Your task to perform on an android device: Open location settings Image 0: 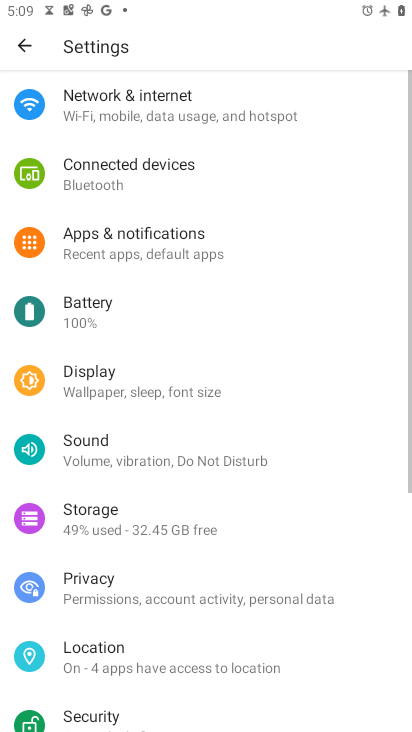
Step 0: press home button
Your task to perform on an android device: Open location settings Image 1: 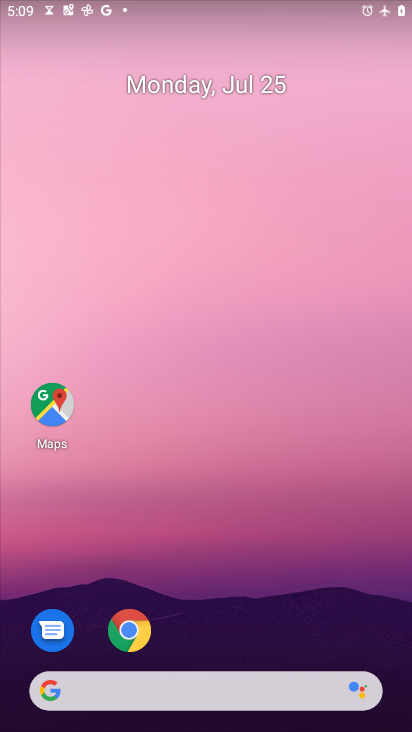
Step 1: drag from (197, 690) to (333, 0)
Your task to perform on an android device: Open location settings Image 2: 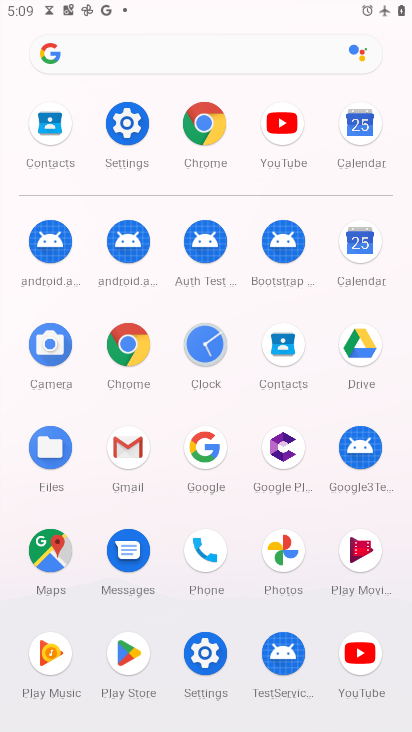
Step 2: click (127, 122)
Your task to perform on an android device: Open location settings Image 3: 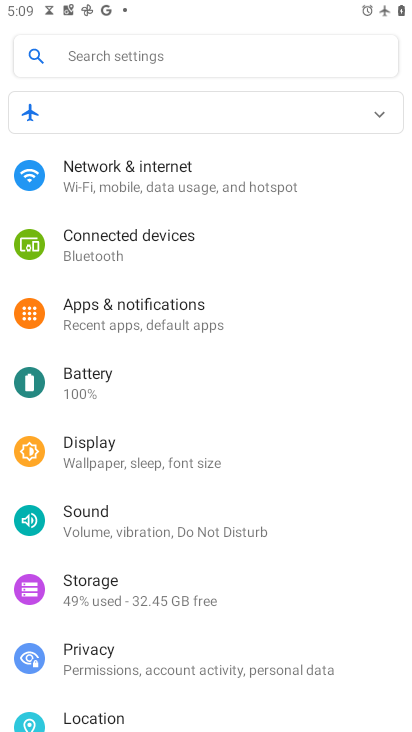
Step 3: drag from (157, 426) to (240, 247)
Your task to perform on an android device: Open location settings Image 4: 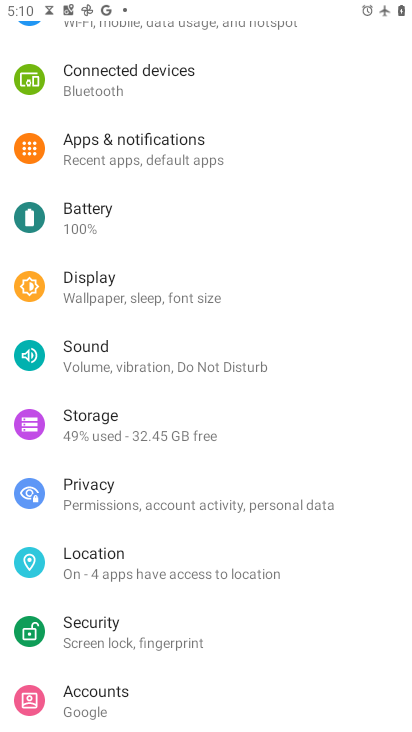
Step 4: click (91, 554)
Your task to perform on an android device: Open location settings Image 5: 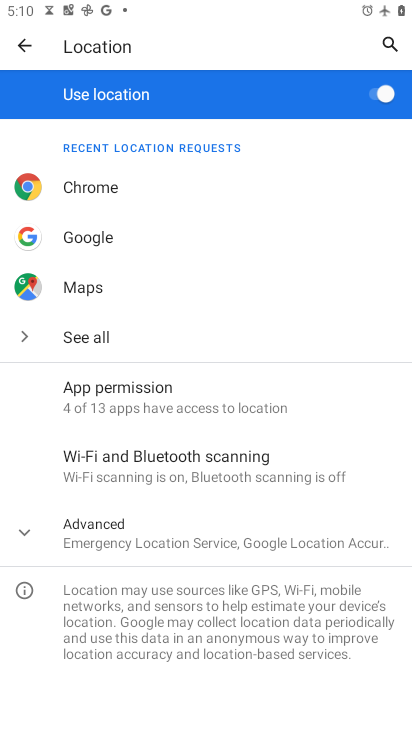
Step 5: task complete